Your task to perform on an android device: Search for pizza restaurants on Maps Image 0: 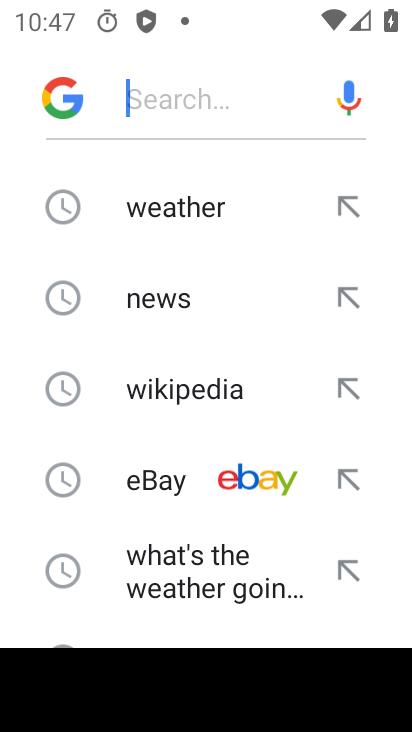
Step 0: press home button
Your task to perform on an android device: Search for pizza restaurants on Maps Image 1: 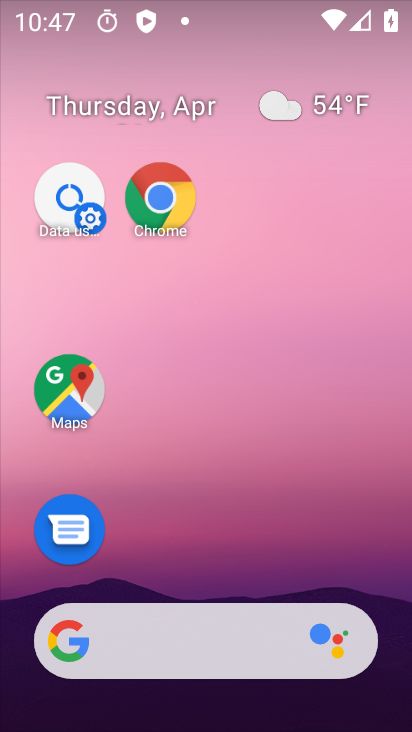
Step 1: drag from (184, 566) to (392, 27)
Your task to perform on an android device: Search for pizza restaurants on Maps Image 2: 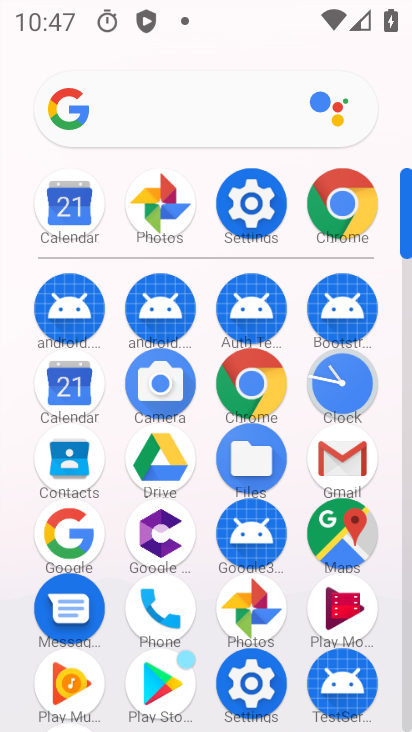
Step 2: click (346, 530)
Your task to perform on an android device: Search for pizza restaurants on Maps Image 3: 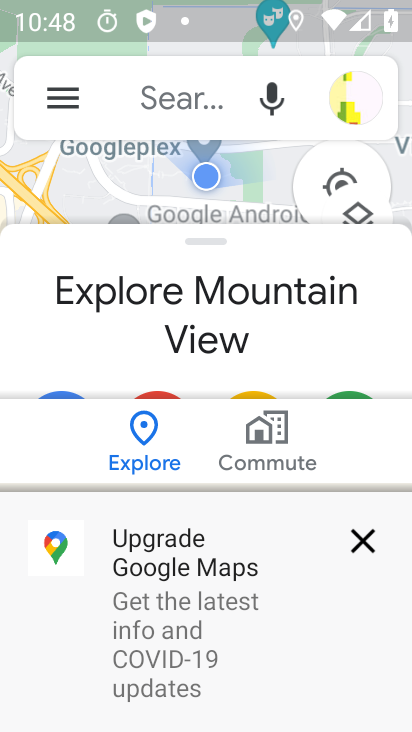
Step 3: click (348, 543)
Your task to perform on an android device: Search for pizza restaurants on Maps Image 4: 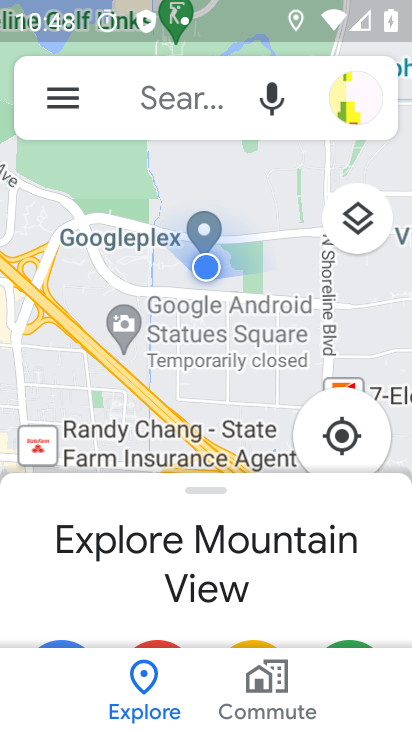
Step 4: click (178, 108)
Your task to perform on an android device: Search for pizza restaurants on Maps Image 5: 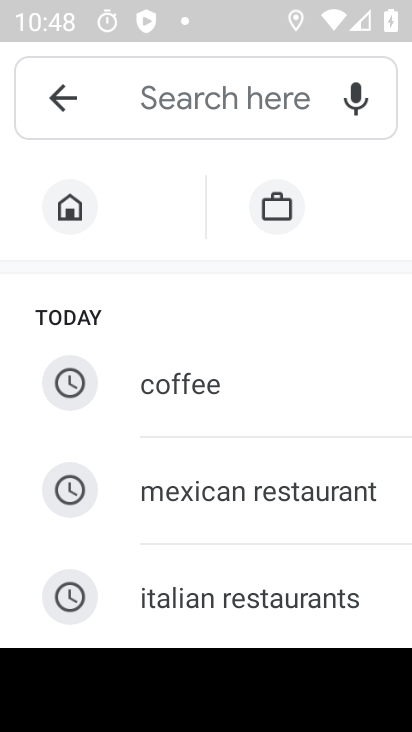
Step 5: drag from (202, 577) to (196, 156)
Your task to perform on an android device: Search for pizza restaurants on Maps Image 6: 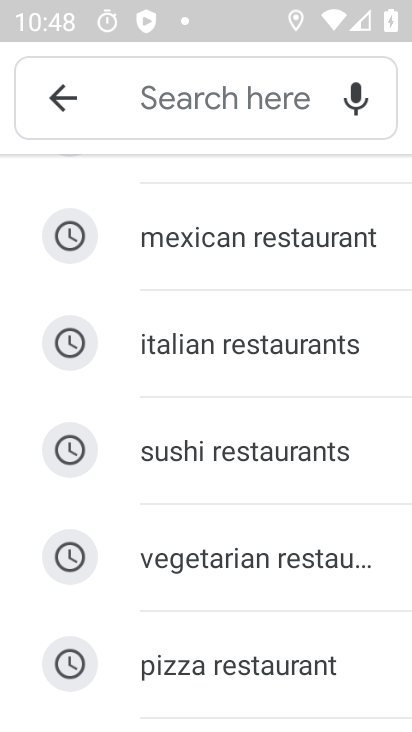
Step 6: drag from (237, 600) to (202, 199)
Your task to perform on an android device: Search for pizza restaurants on Maps Image 7: 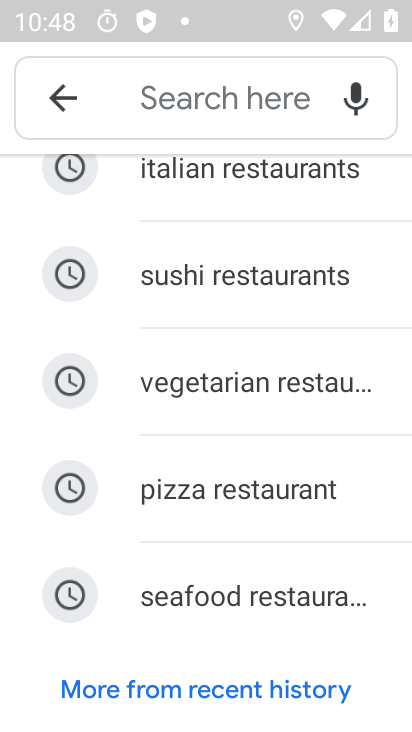
Step 7: click (207, 502)
Your task to perform on an android device: Search for pizza restaurants on Maps Image 8: 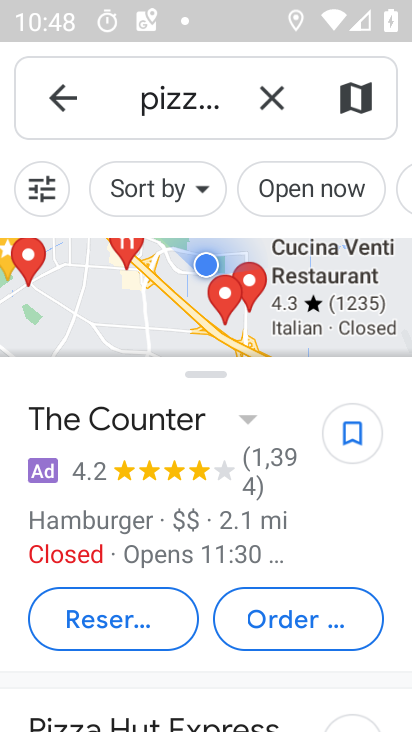
Step 8: task complete